Your task to perform on an android device: Go to Amazon Image 0: 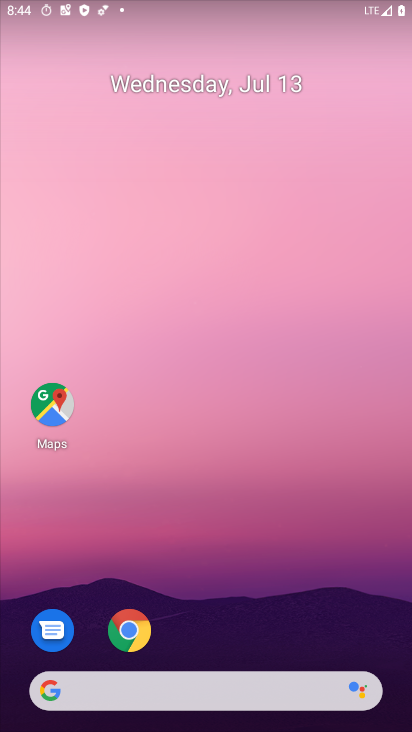
Step 0: drag from (344, 625) to (357, 162)
Your task to perform on an android device: Go to Amazon Image 1: 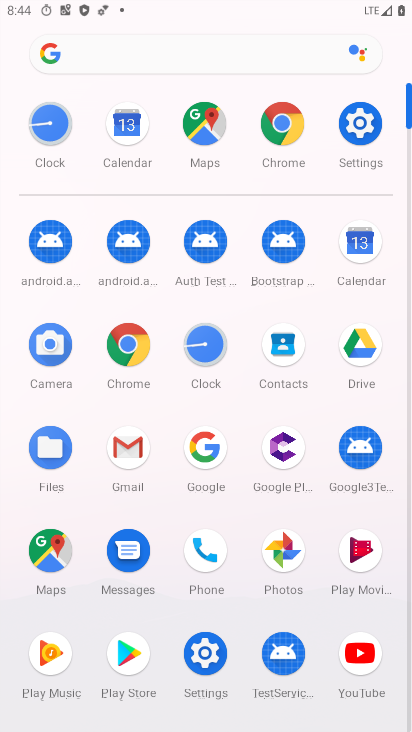
Step 1: click (132, 355)
Your task to perform on an android device: Go to Amazon Image 2: 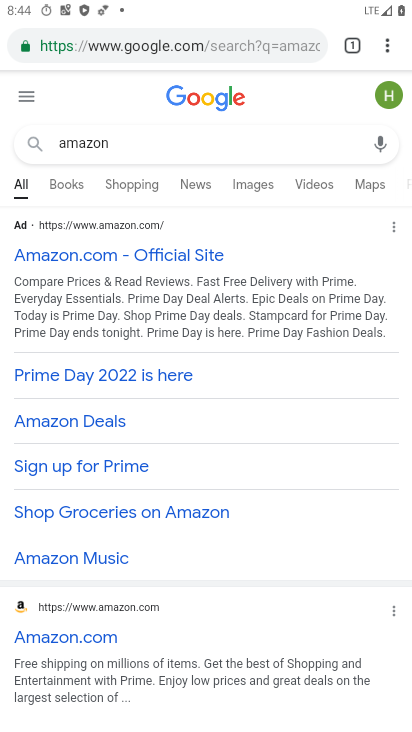
Step 2: click (268, 44)
Your task to perform on an android device: Go to Amazon Image 3: 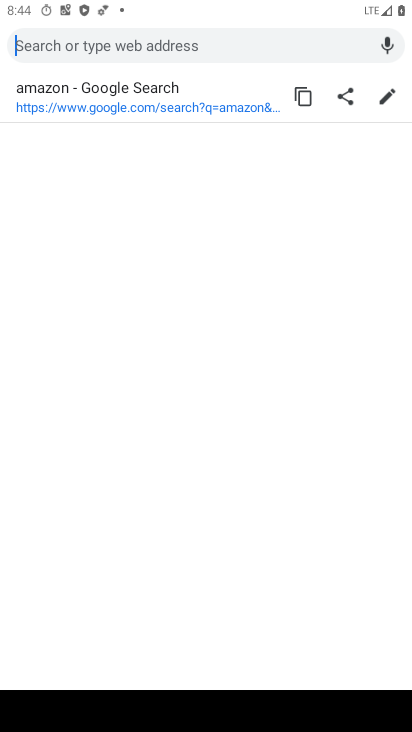
Step 3: type "amazon"
Your task to perform on an android device: Go to Amazon Image 4: 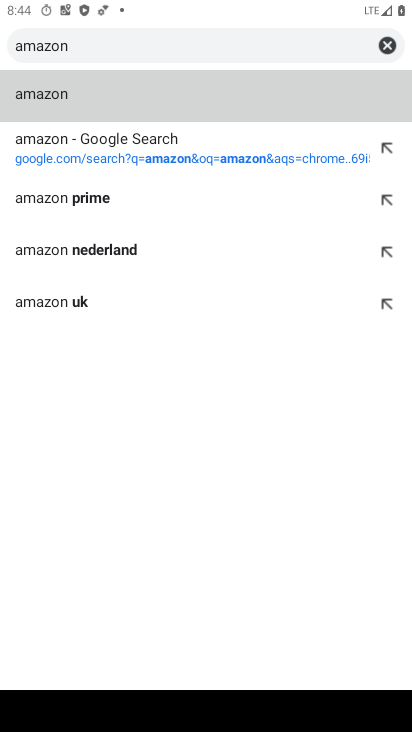
Step 4: click (218, 136)
Your task to perform on an android device: Go to Amazon Image 5: 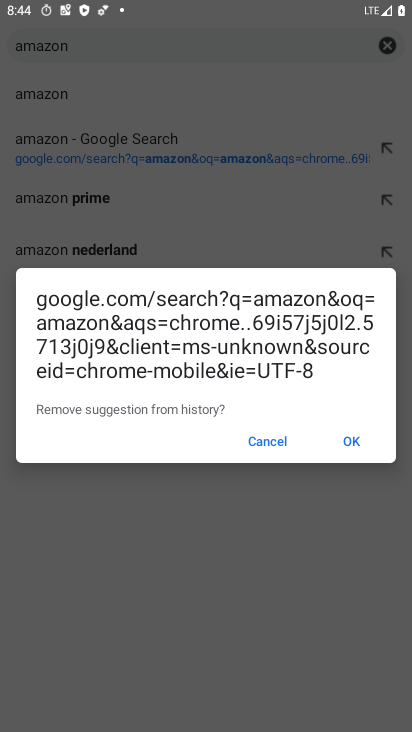
Step 5: click (269, 439)
Your task to perform on an android device: Go to Amazon Image 6: 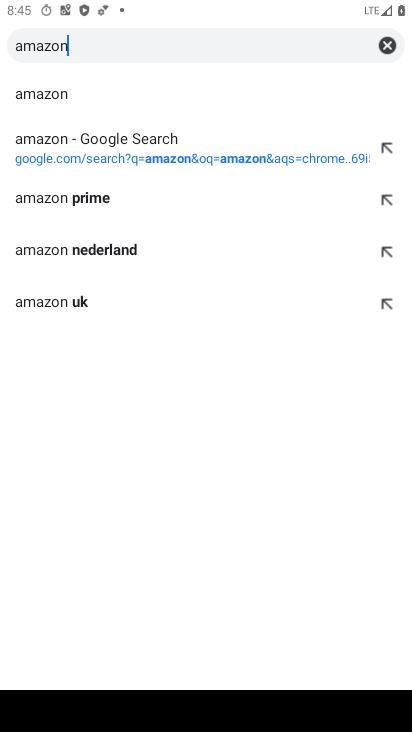
Step 6: click (83, 96)
Your task to perform on an android device: Go to Amazon Image 7: 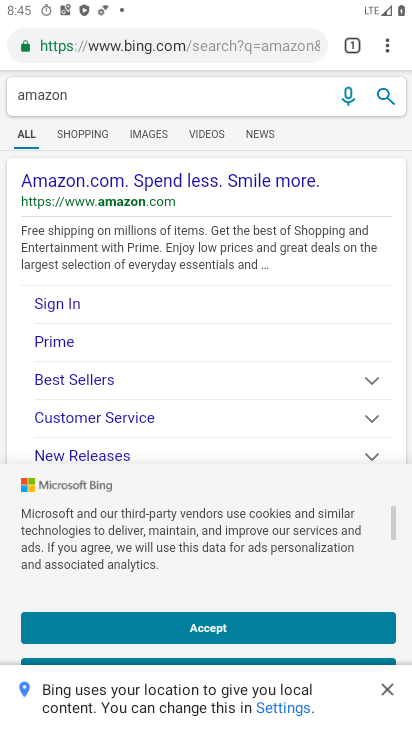
Step 7: task complete